Your task to perform on an android device: star an email in the gmail app Image 0: 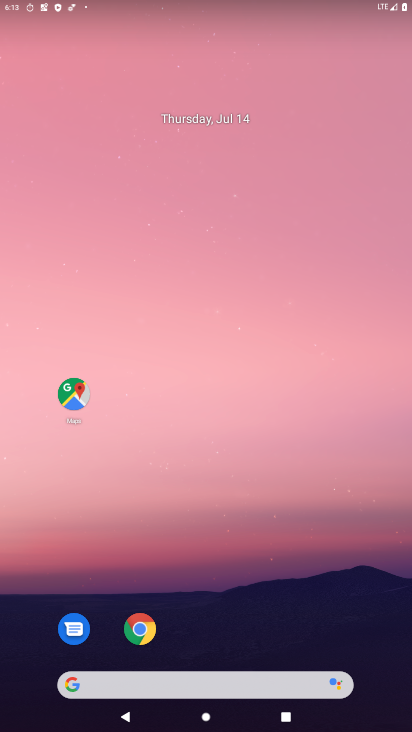
Step 0: drag from (239, 688) to (149, 0)
Your task to perform on an android device: star an email in the gmail app Image 1: 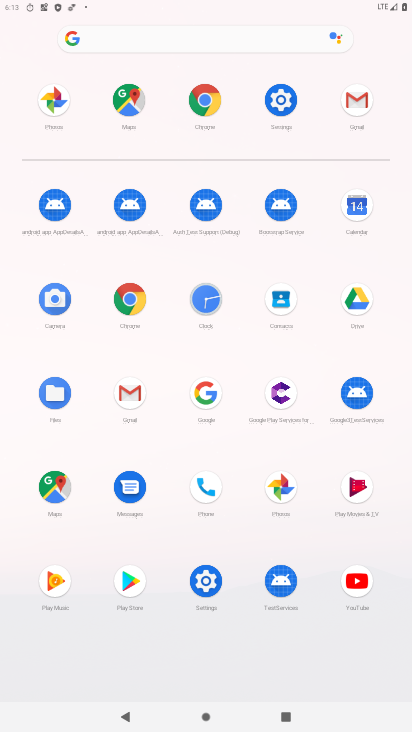
Step 1: click (139, 390)
Your task to perform on an android device: star an email in the gmail app Image 2: 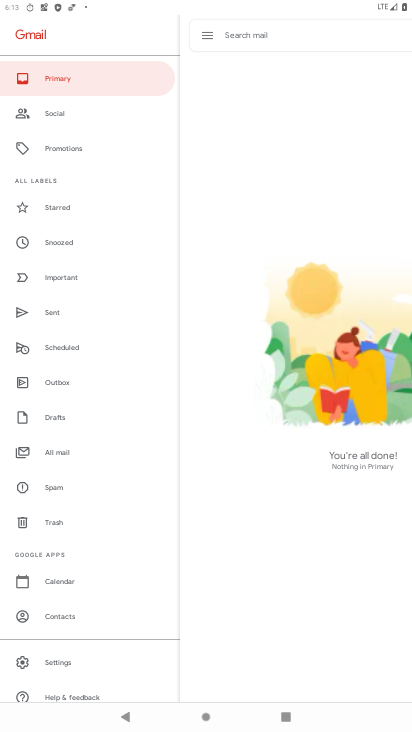
Step 2: click (70, 209)
Your task to perform on an android device: star an email in the gmail app Image 3: 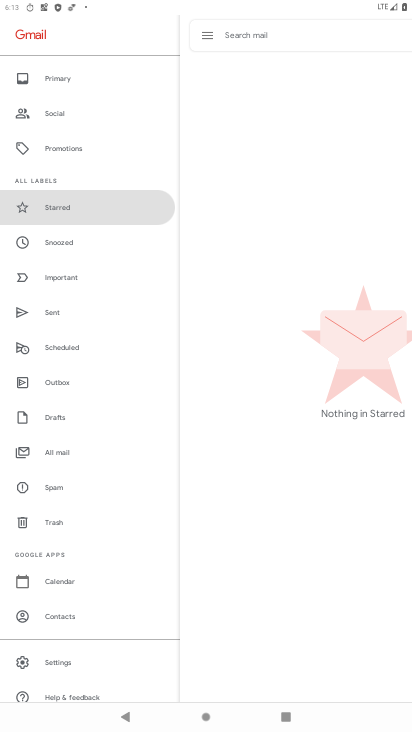
Step 3: task complete